Your task to perform on an android device: Open display settings Image 0: 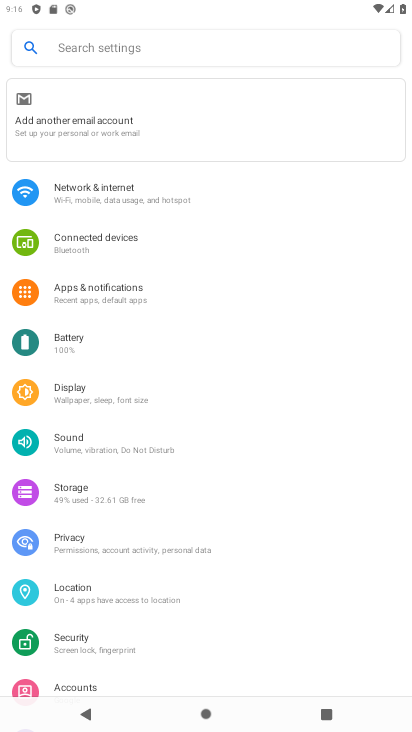
Step 0: click (76, 393)
Your task to perform on an android device: Open display settings Image 1: 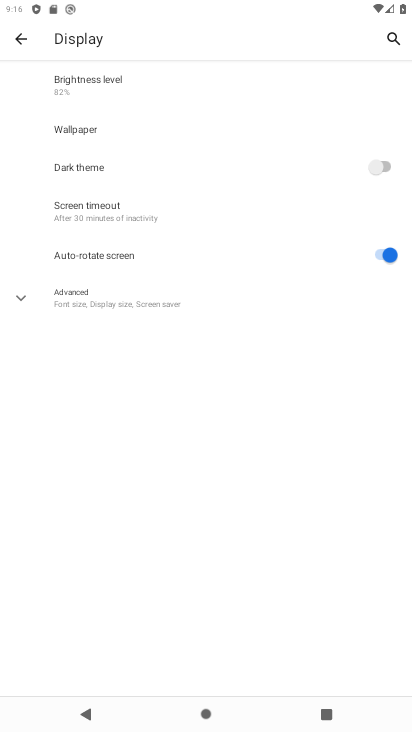
Step 1: click (98, 304)
Your task to perform on an android device: Open display settings Image 2: 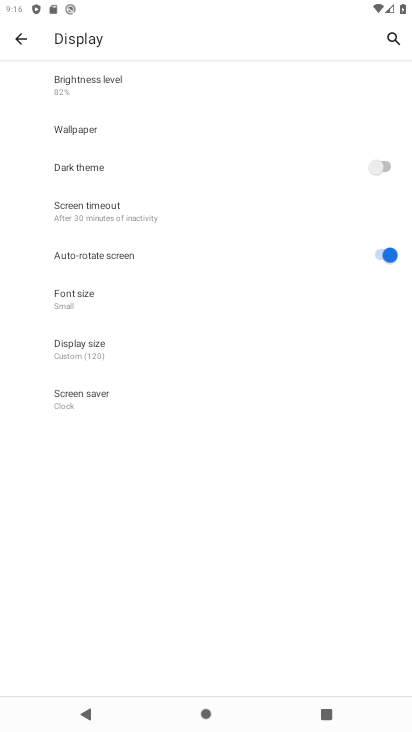
Step 2: task complete